Your task to perform on an android device: check android version Image 0: 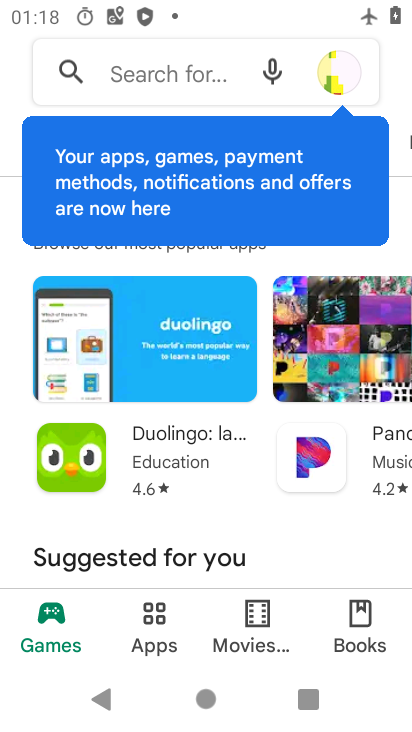
Step 0: press home button
Your task to perform on an android device: check android version Image 1: 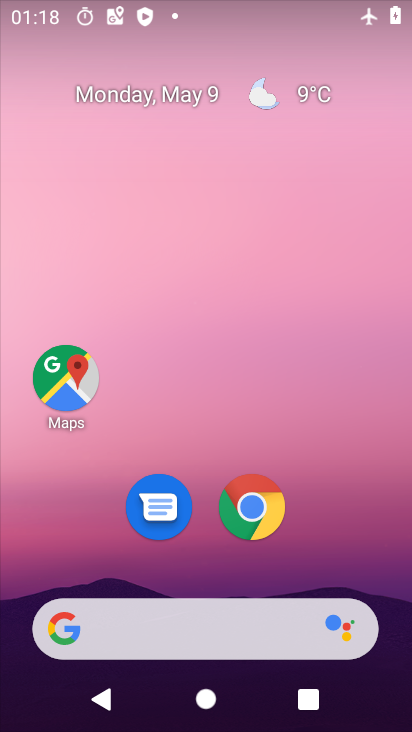
Step 1: drag from (235, 724) to (238, 162)
Your task to perform on an android device: check android version Image 2: 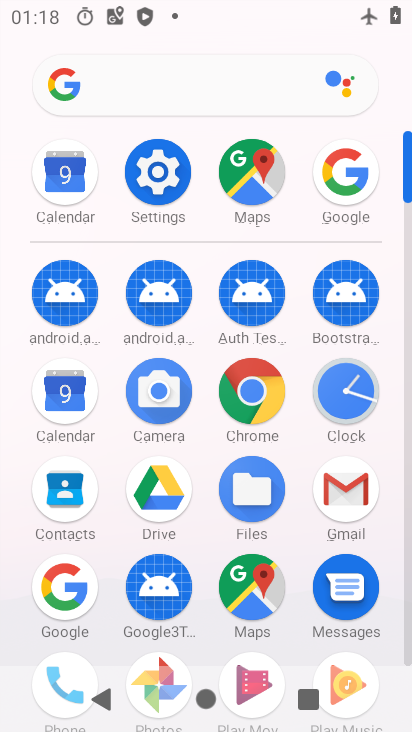
Step 2: click (142, 176)
Your task to perform on an android device: check android version Image 3: 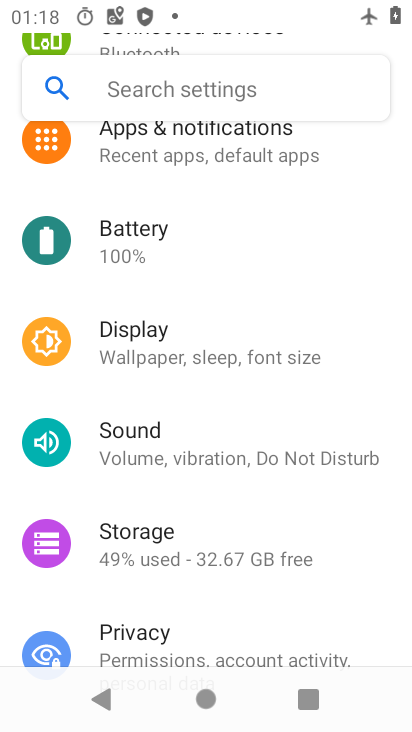
Step 3: drag from (200, 633) to (199, 212)
Your task to perform on an android device: check android version Image 4: 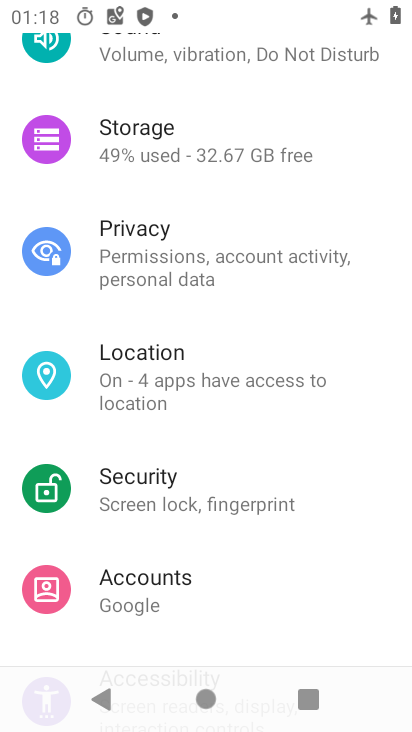
Step 4: drag from (174, 644) to (181, 208)
Your task to perform on an android device: check android version Image 5: 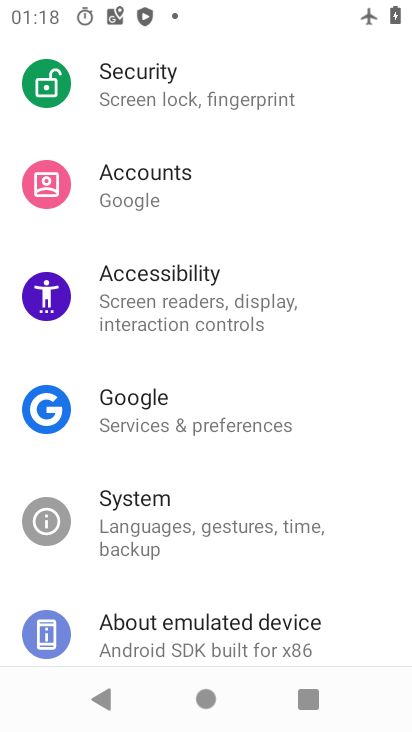
Step 5: drag from (213, 619) to (216, 278)
Your task to perform on an android device: check android version Image 6: 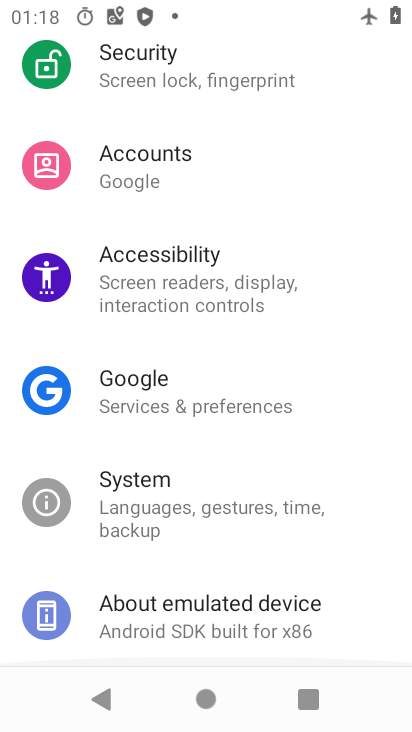
Step 6: click (189, 620)
Your task to perform on an android device: check android version Image 7: 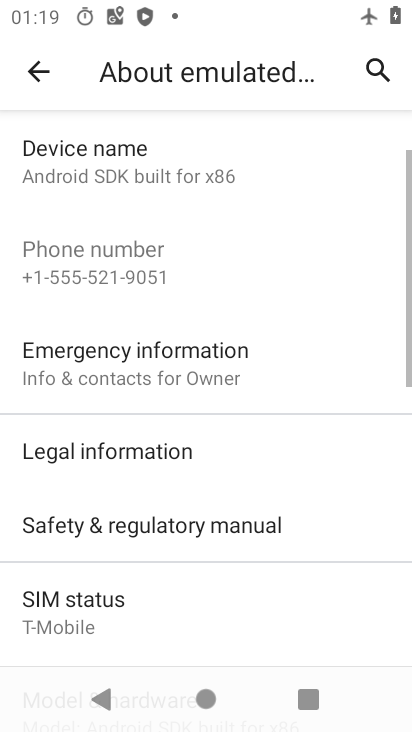
Step 7: drag from (163, 614) to (181, 257)
Your task to perform on an android device: check android version Image 8: 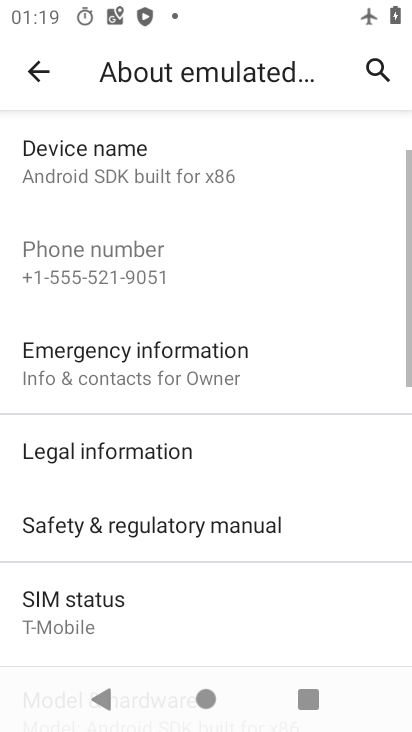
Step 8: drag from (138, 625) to (145, 236)
Your task to perform on an android device: check android version Image 9: 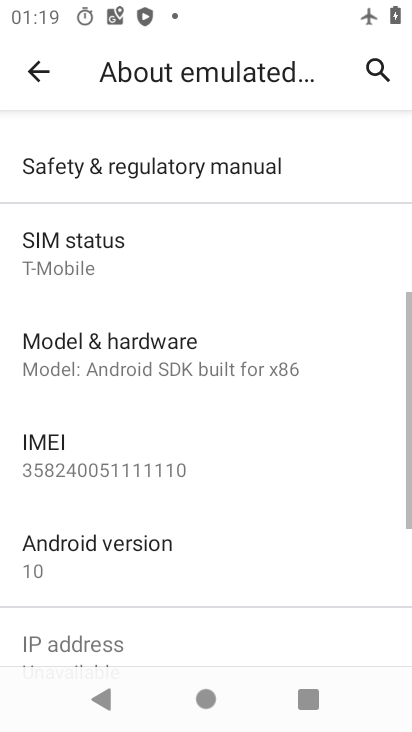
Step 9: click (85, 547)
Your task to perform on an android device: check android version Image 10: 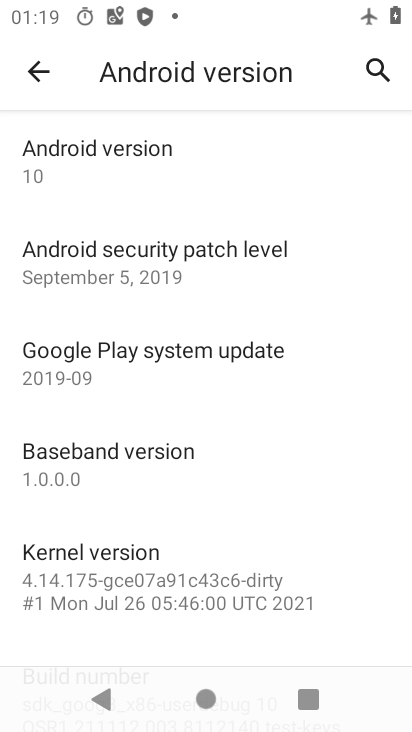
Step 10: task complete